Your task to perform on an android device: uninstall "PUBG MOBILE" Image 0: 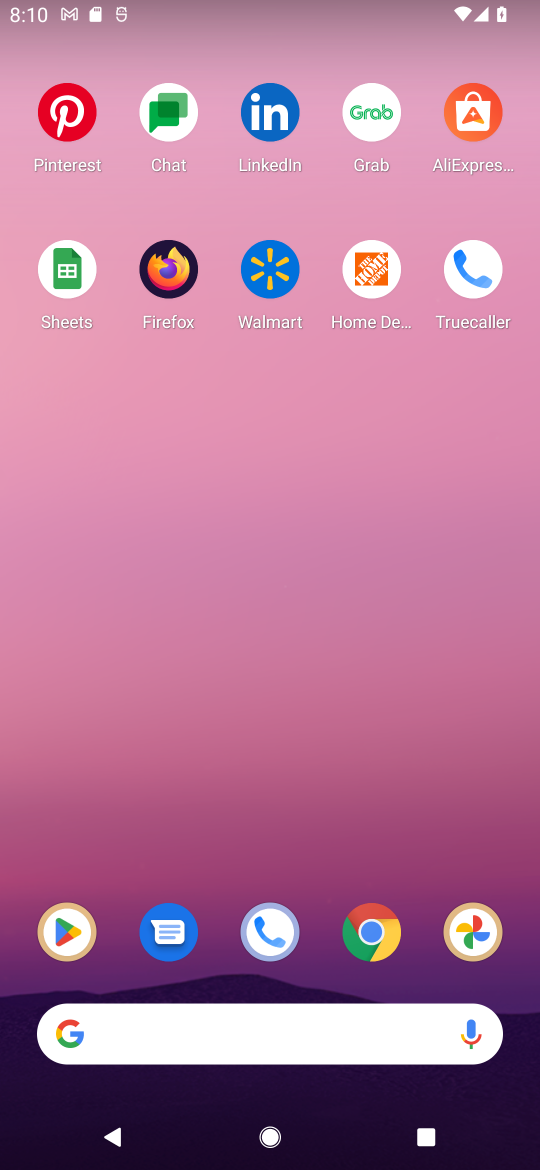
Step 0: click (57, 929)
Your task to perform on an android device: uninstall "PUBG MOBILE" Image 1: 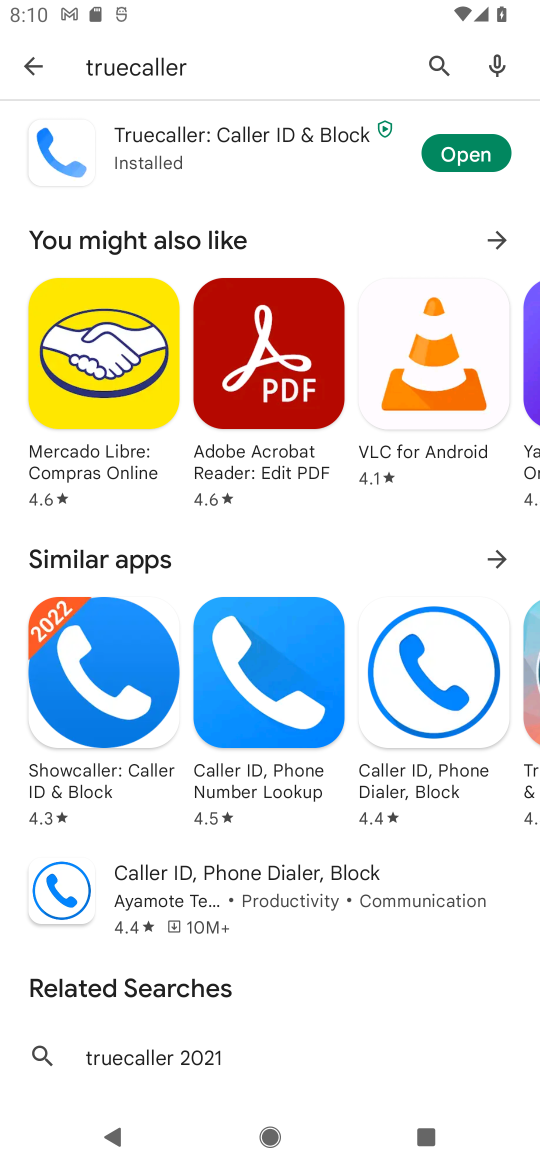
Step 1: click (217, 68)
Your task to perform on an android device: uninstall "PUBG MOBILE" Image 2: 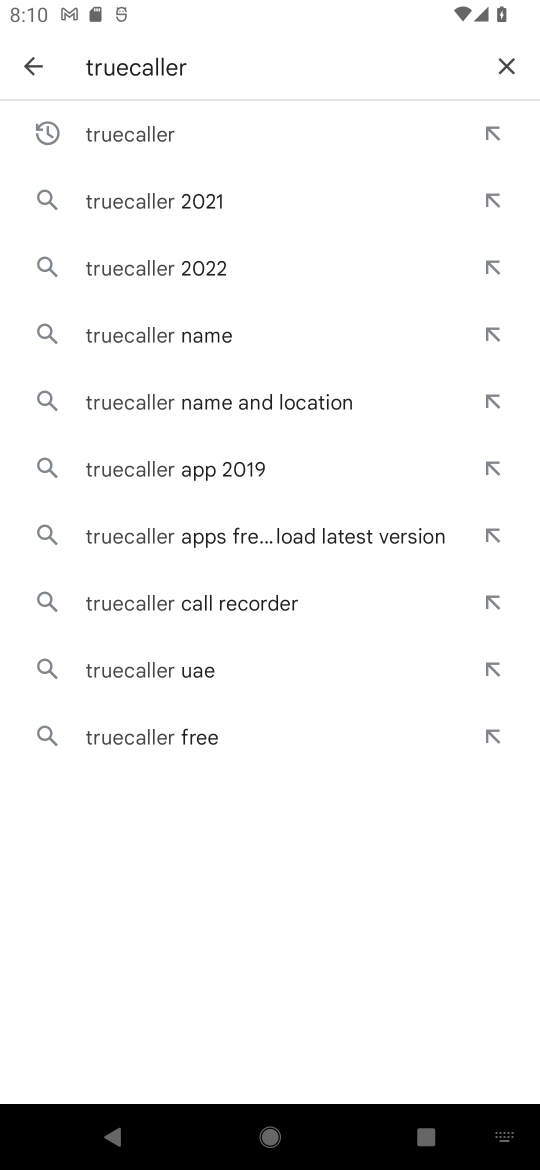
Step 2: click (510, 63)
Your task to perform on an android device: uninstall "PUBG MOBILE" Image 3: 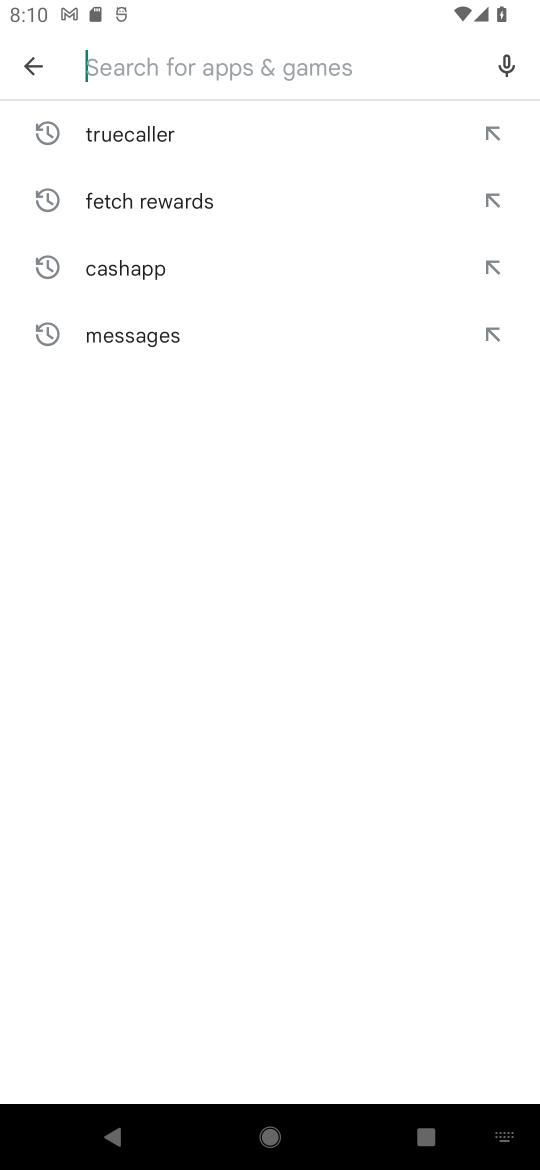
Step 3: type "PUBG"
Your task to perform on an android device: uninstall "PUBG MOBILE" Image 4: 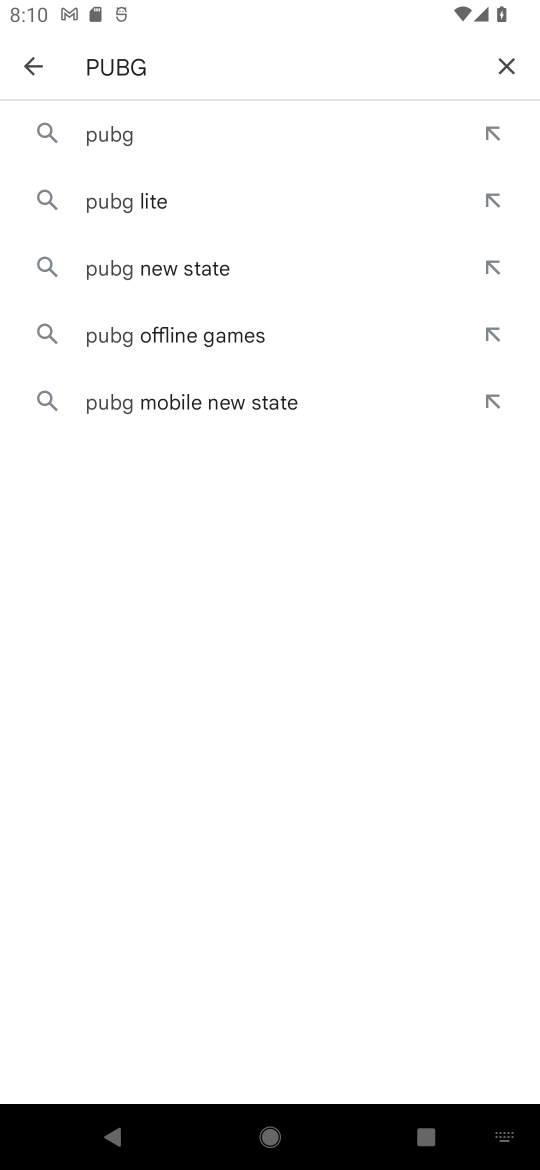
Step 4: click (134, 143)
Your task to perform on an android device: uninstall "PUBG MOBILE" Image 5: 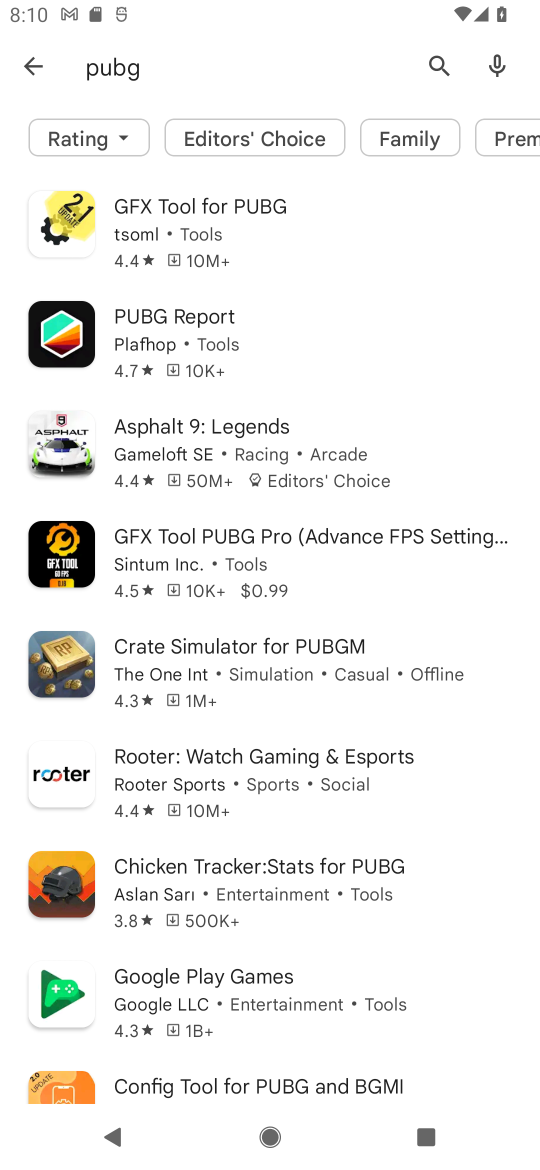
Step 5: task complete